Your task to perform on an android device: turn on the 12-hour format for clock Image 0: 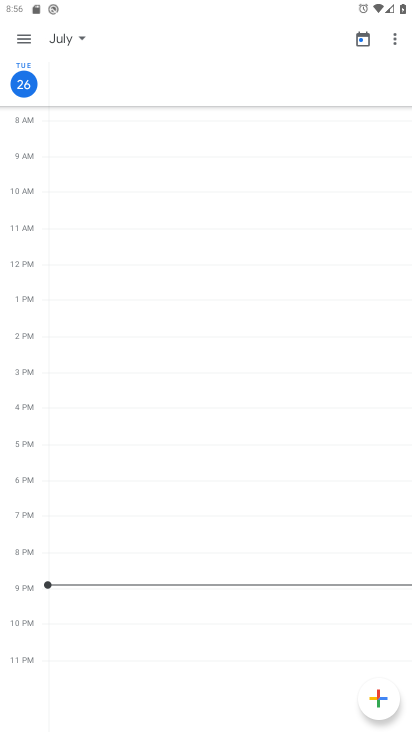
Step 0: press home button
Your task to perform on an android device: turn on the 12-hour format for clock Image 1: 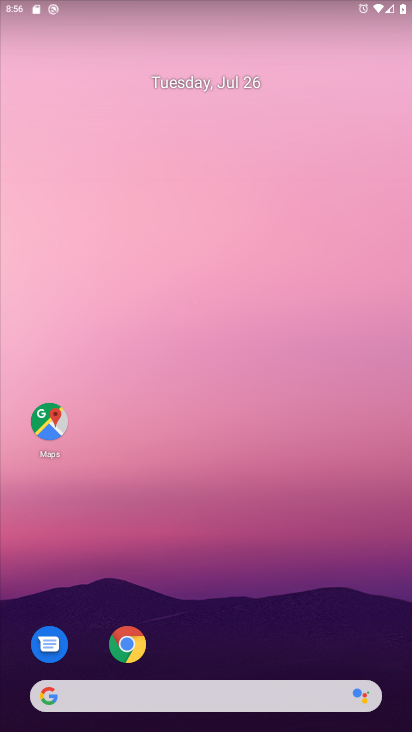
Step 1: drag from (214, 670) to (208, 206)
Your task to perform on an android device: turn on the 12-hour format for clock Image 2: 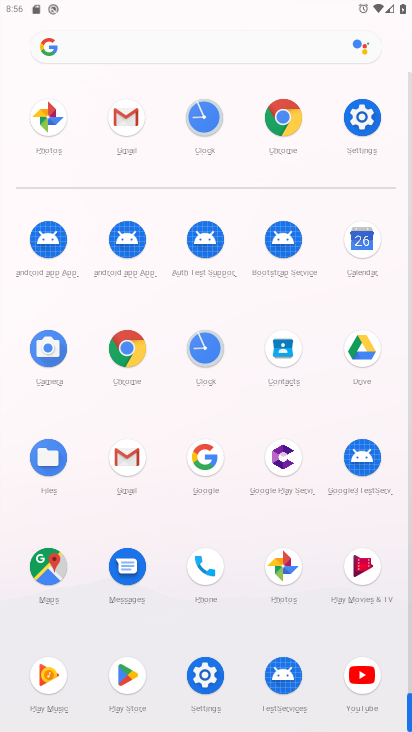
Step 2: click (209, 342)
Your task to perform on an android device: turn on the 12-hour format for clock Image 3: 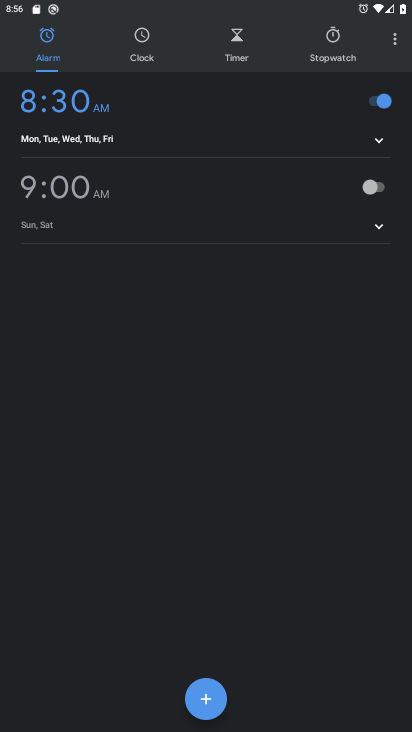
Step 3: click (397, 43)
Your task to perform on an android device: turn on the 12-hour format for clock Image 4: 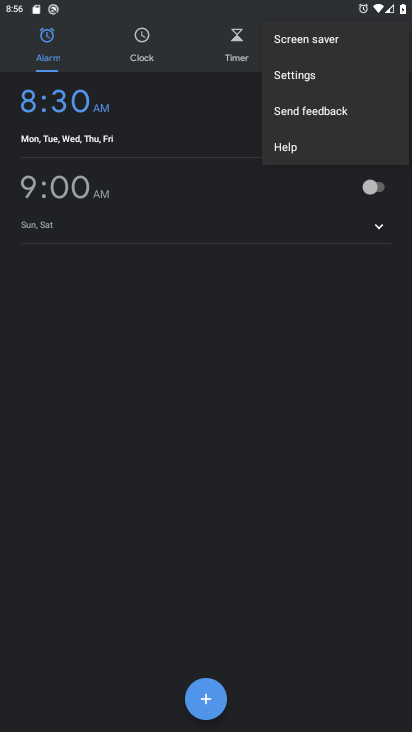
Step 4: click (283, 72)
Your task to perform on an android device: turn on the 12-hour format for clock Image 5: 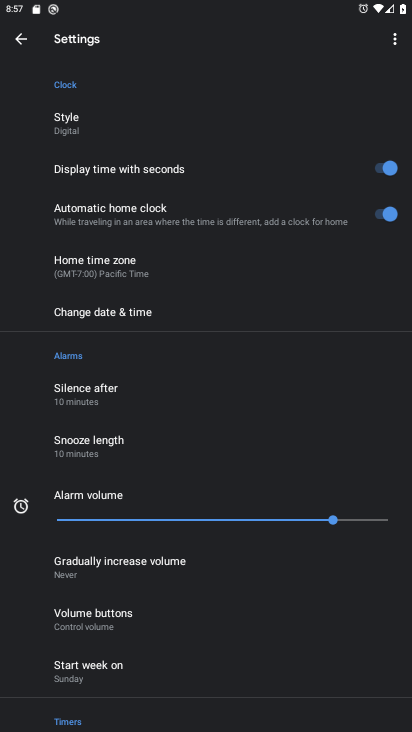
Step 5: click (160, 310)
Your task to perform on an android device: turn on the 12-hour format for clock Image 6: 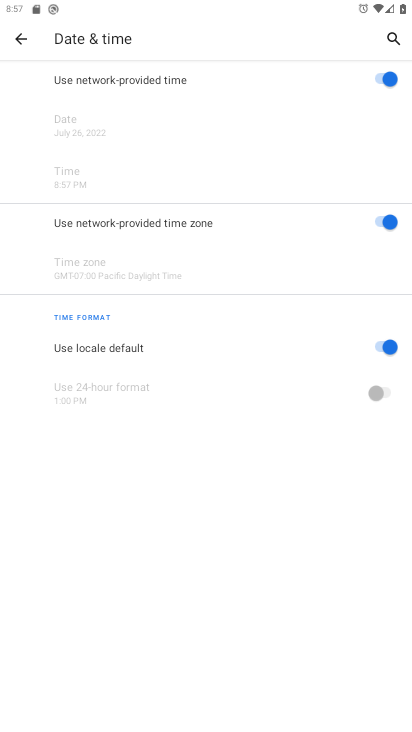
Step 6: click (379, 344)
Your task to perform on an android device: turn on the 12-hour format for clock Image 7: 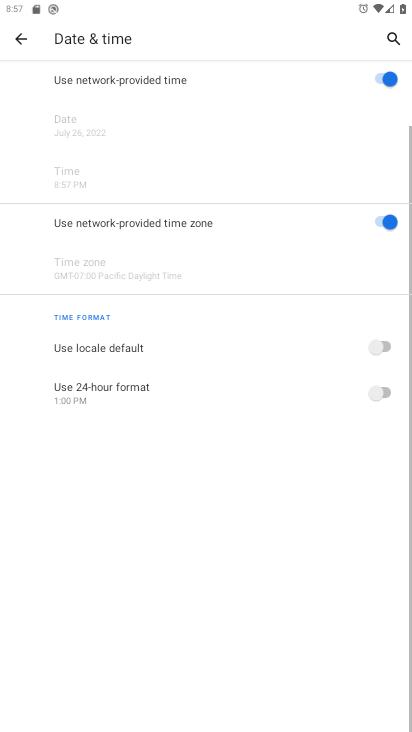
Step 7: click (377, 389)
Your task to perform on an android device: turn on the 12-hour format for clock Image 8: 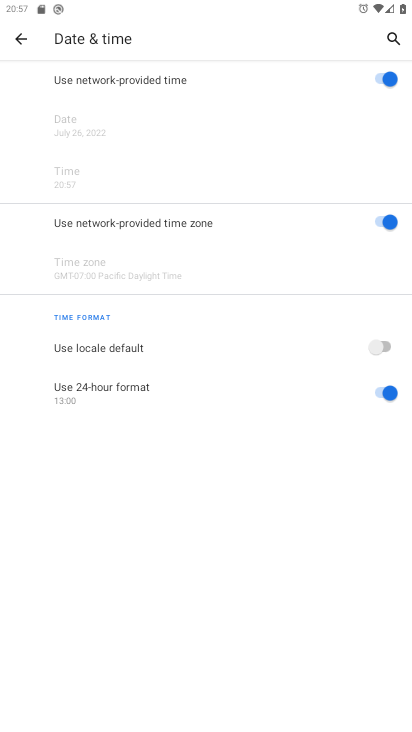
Step 8: task complete